Your task to perform on an android device: clear history in the chrome app Image 0: 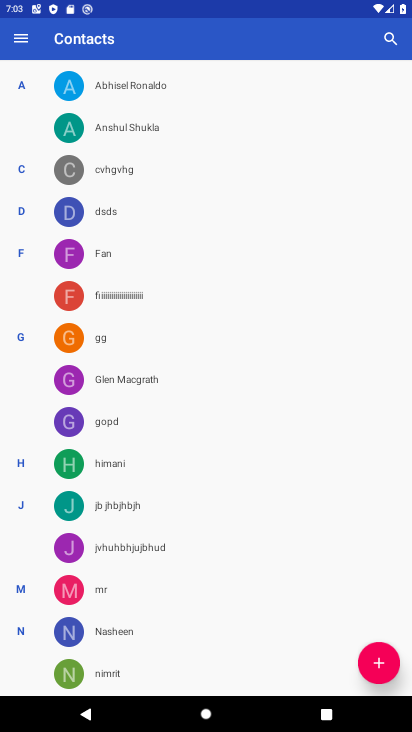
Step 0: press home button
Your task to perform on an android device: clear history in the chrome app Image 1: 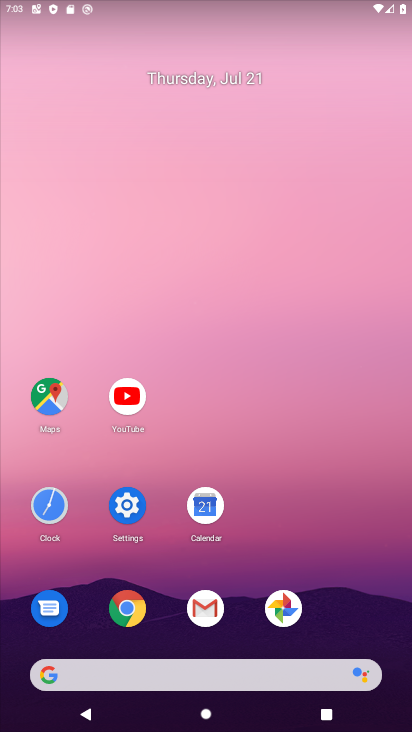
Step 1: click (125, 611)
Your task to perform on an android device: clear history in the chrome app Image 2: 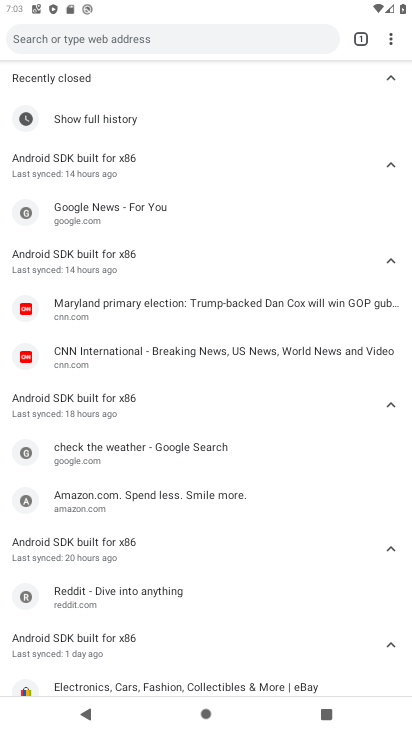
Step 2: click (390, 36)
Your task to perform on an android device: clear history in the chrome app Image 3: 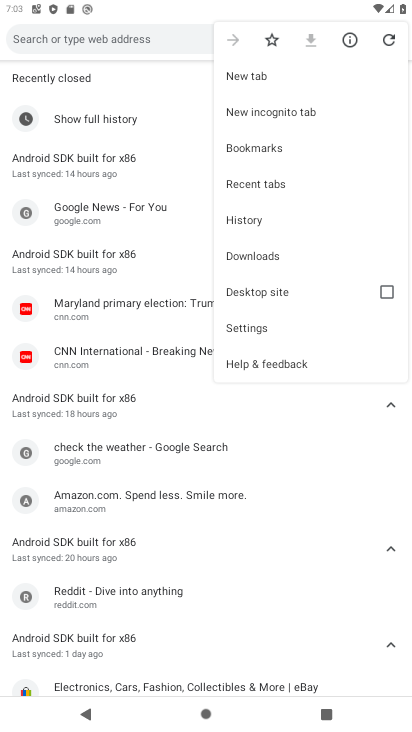
Step 3: click (259, 217)
Your task to perform on an android device: clear history in the chrome app Image 4: 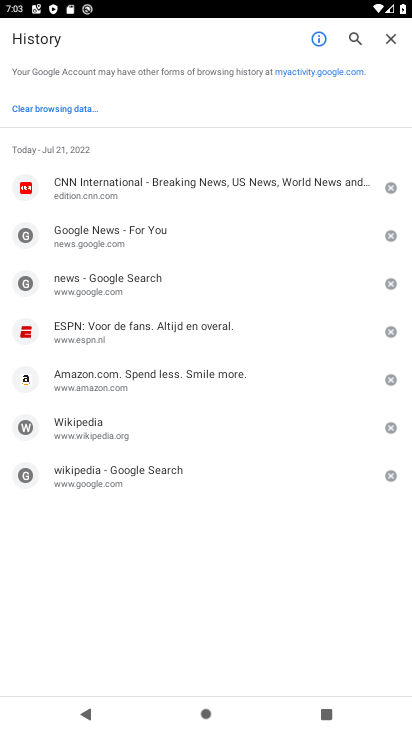
Step 4: click (58, 107)
Your task to perform on an android device: clear history in the chrome app Image 5: 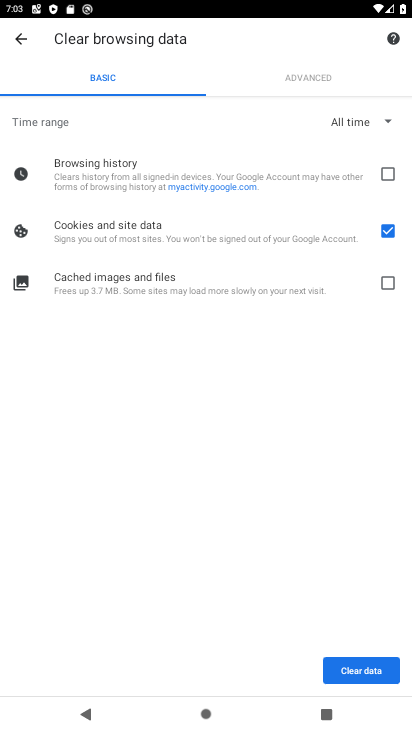
Step 5: click (394, 174)
Your task to perform on an android device: clear history in the chrome app Image 6: 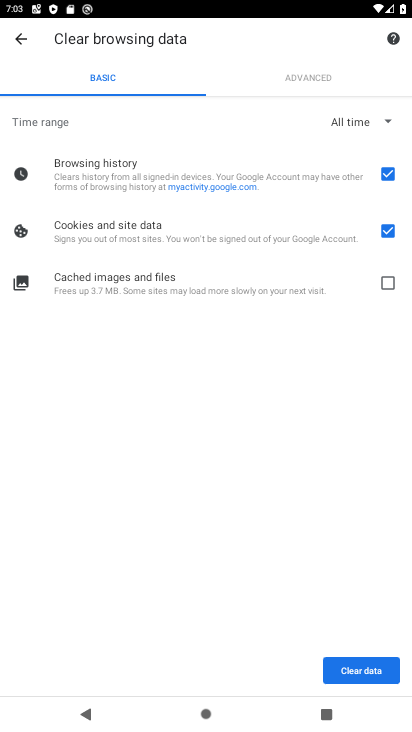
Step 6: click (390, 225)
Your task to perform on an android device: clear history in the chrome app Image 7: 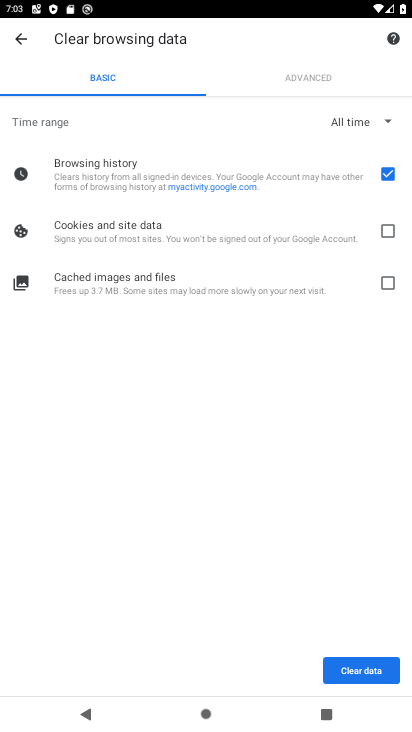
Step 7: click (366, 665)
Your task to perform on an android device: clear history in the chrome app Image 8: 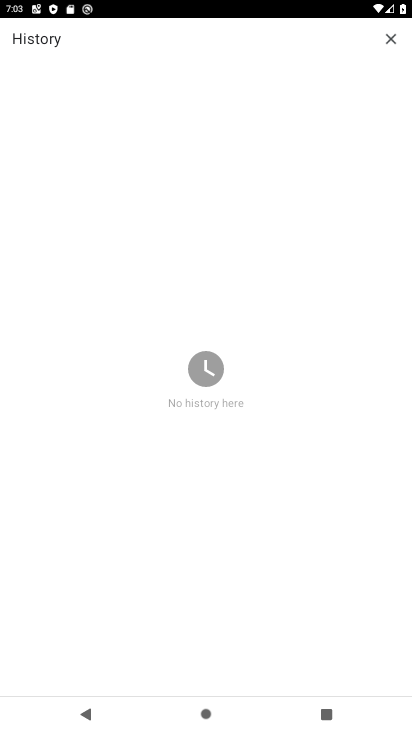
Step 8: task complete